Your task to perform on an android device: snooze an email in the gmail app Image 0: 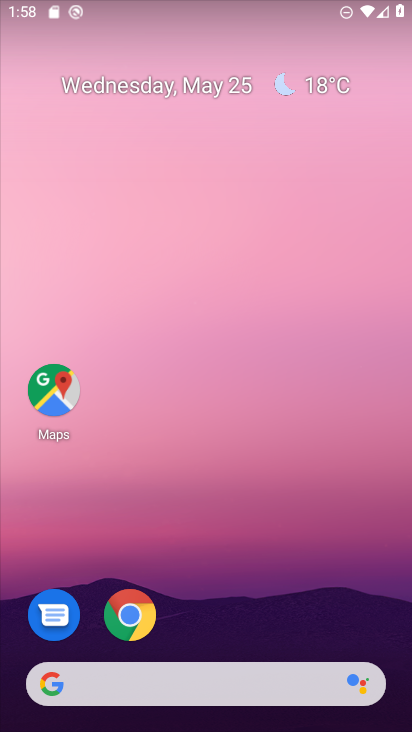
Step 0: drag from (260, 600) to (268, 34)
Your task to perform on an android device: snooze an email in the gmail app Image 1: 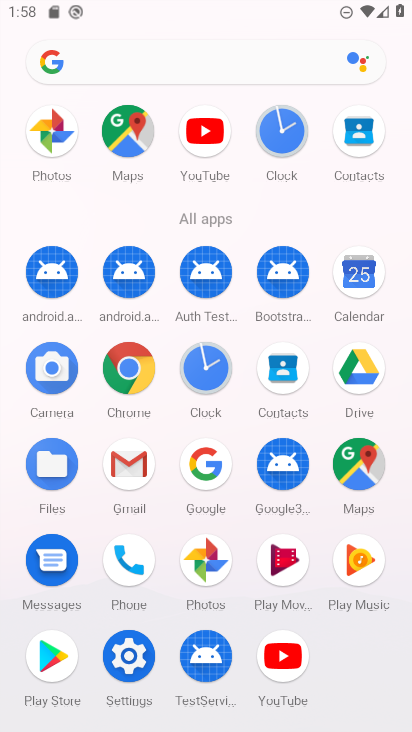
Step 1: click (138, 462)
Your task to perform on an android device: snooze an email in the gmail app Image 2: 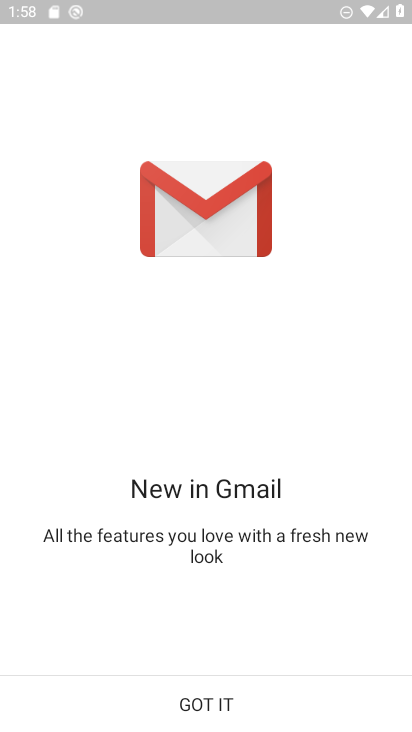
Step 2: click (264, 694)
Your task to perform on an android device: snooze an email in the gmail app Image 3: 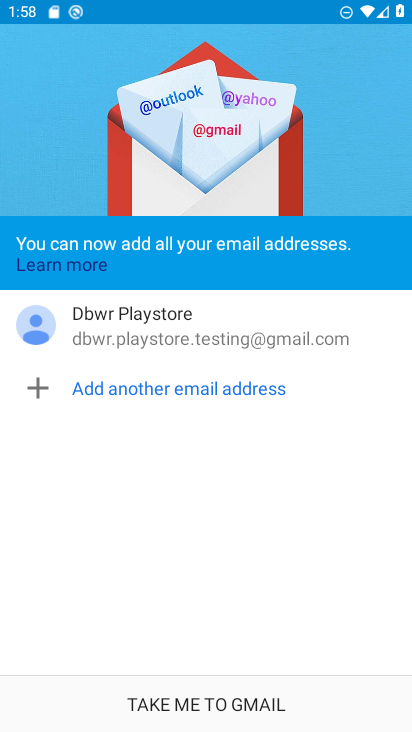
Step 3: click (268, 692)
Your task to perform on an android device: snooze an email in the gmail app Image 4: 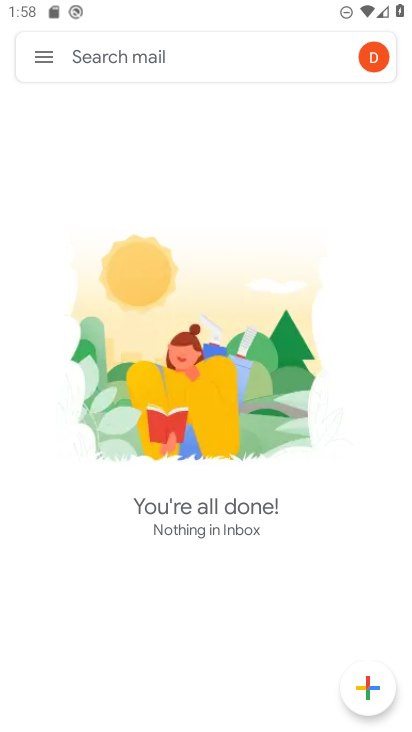
Step 4: click (35, 49)
Your task to perform on an android device: snooze an email in the gmail app Image 5: 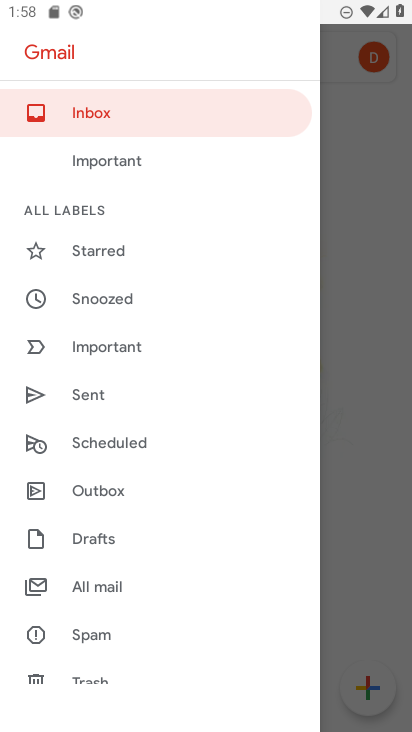
Step 5: click (90, 582)
Your task to perform on an android device: snooze an email in the gmail app Image 6: 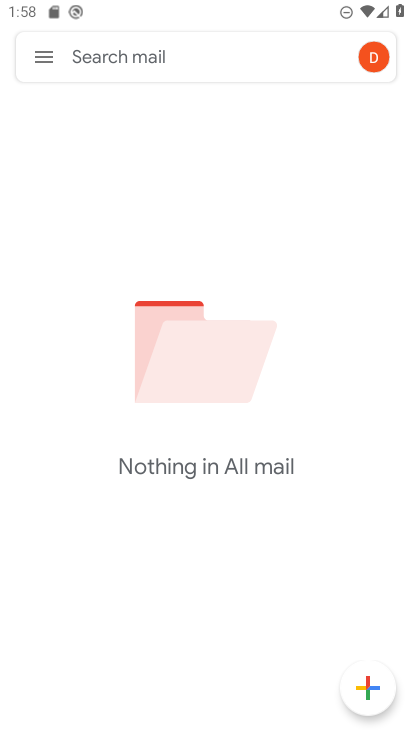
Step 6: task complete